Your task to perform on an android device: install app "Indeed Job Search" Image 0: 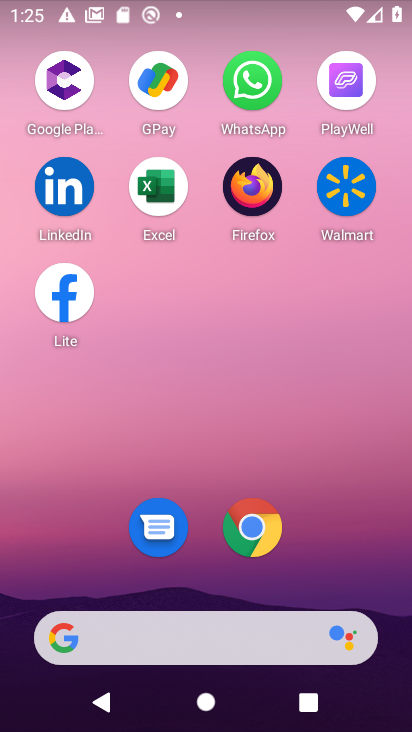
Step 0: drag from (244, 711) to (240, 19)
Your task to perform on an android device: install app "Indeed Job Search" Image 1: 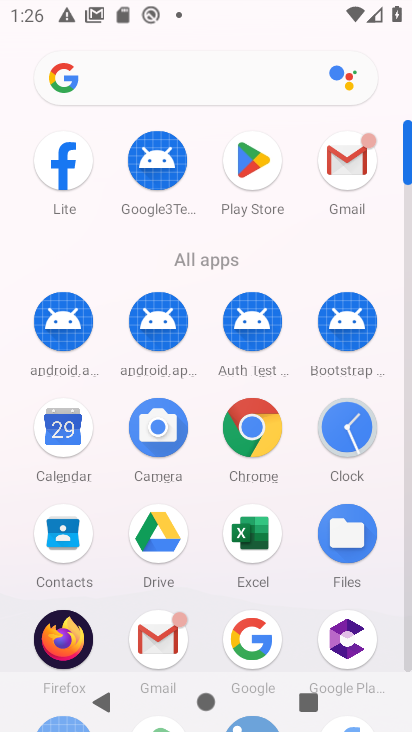
Step 1: click (245, 164)
Your task to perform on an android device: install app "Indeed Job Search" Image 2: 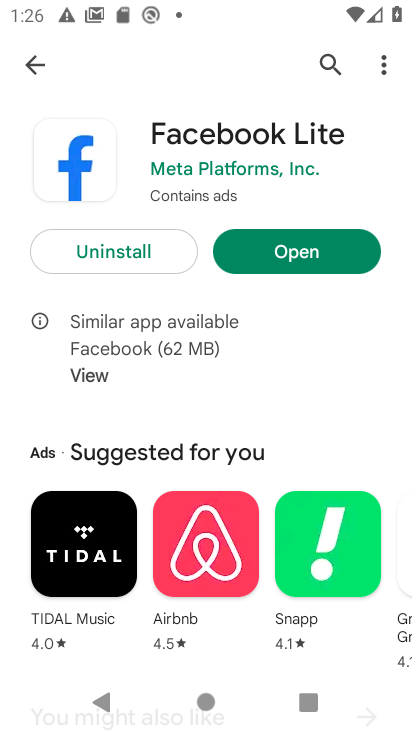
Step 2: click (329, 56)
Your task to perform on an android device: install app "Indeed Job Search" Image 3: 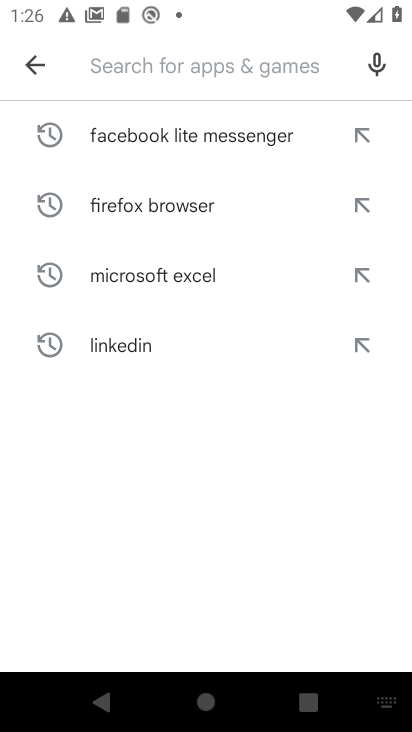
Step 3: type "Indeed Job Search"
Your task to perform on an android device: install app "Indeed Job Search" Image 4: 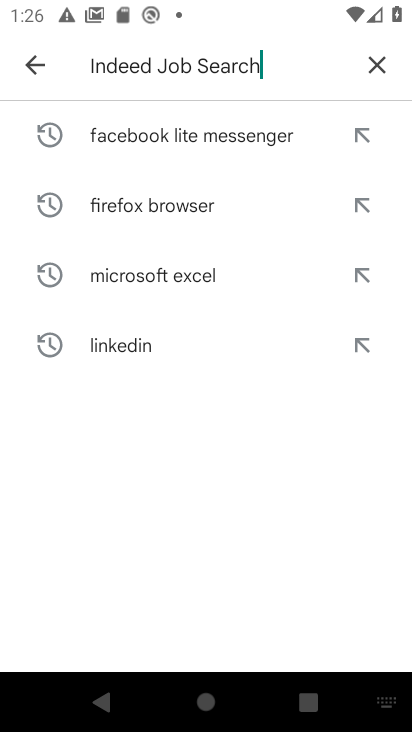
Step 4: type ""
Your task to perform on an android device: install app "Indeed Job Search" Image 5: 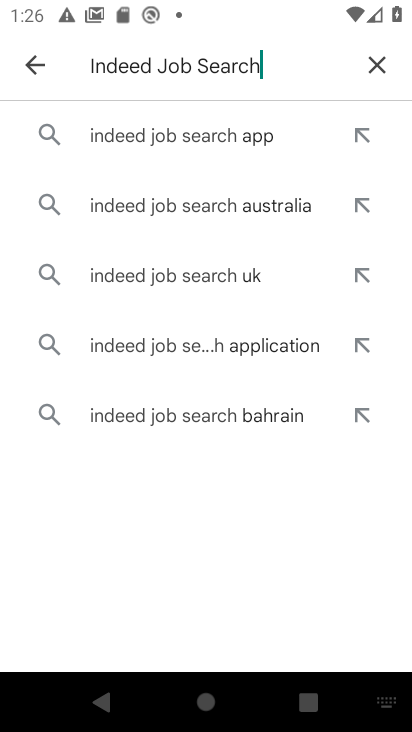
Step 5: click (240, 133)
Your task to perform on an android device: install app "Indeed Job Search" Image 6: 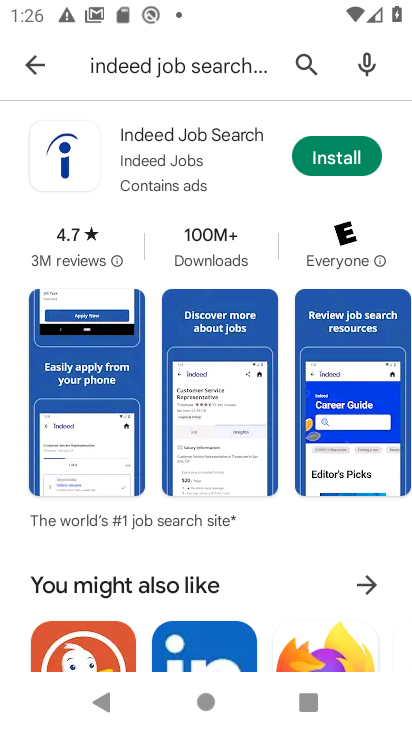
Step 6: click (331, 161)
Your task to perform on an android device: install app "Indeed Job Search" Image 7: 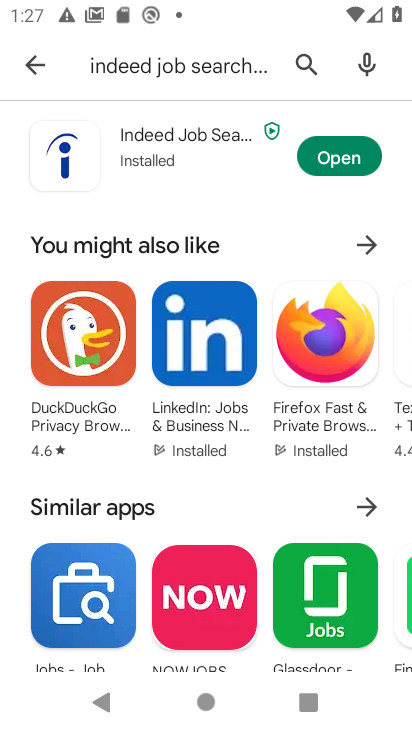
Step 7: task complete